Your task to perform on an android device: Open location settings Image 0: 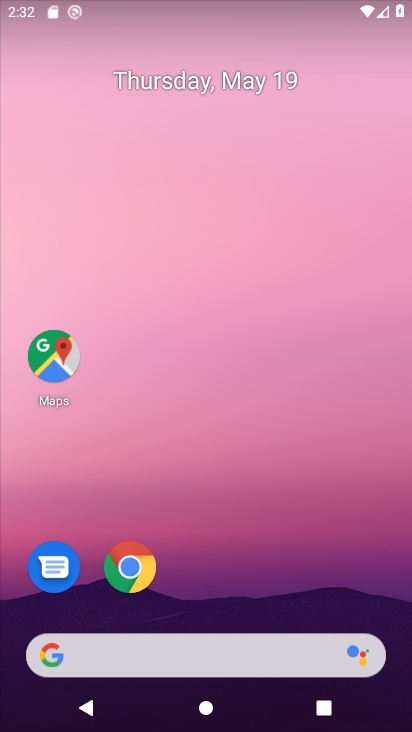
Step 0: drag from (185, 616) to (196, 13)
Your task to perform on an android device: Open location settings Image 1: 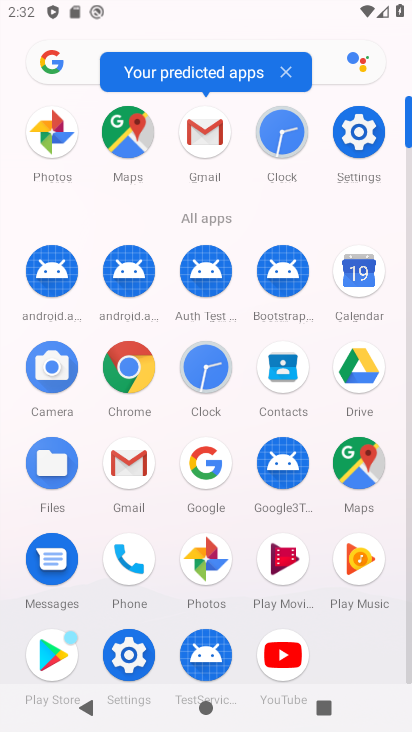
Step 1: click (333, 140)
Your task to perform on an android device: Open location settings Image 2: 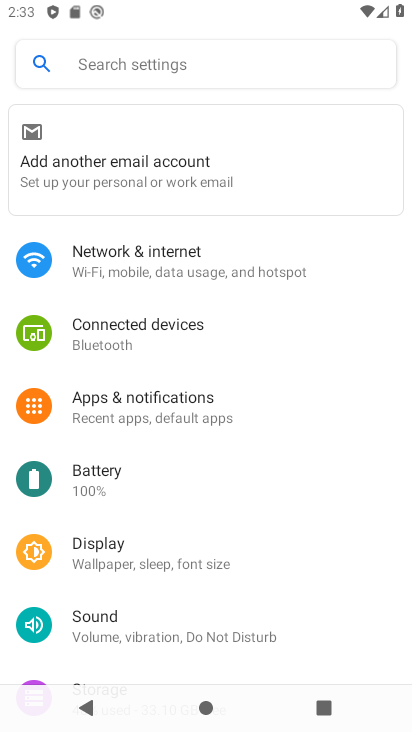
Step 2: drag from (269, 577) to (190, 1)
Your task to perform on an android device: Open location settings Image 3: 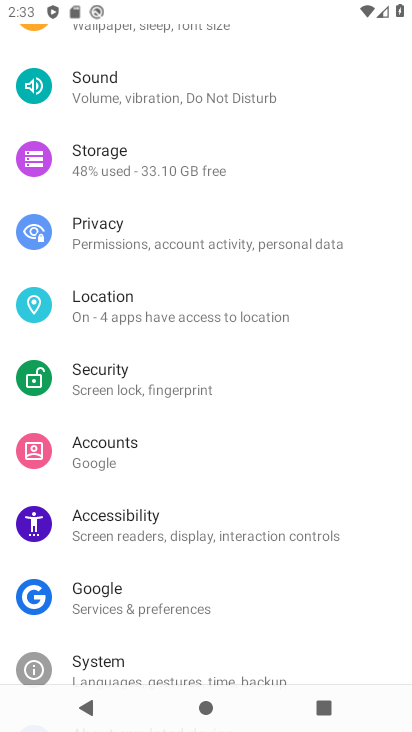
Step 3: drag from (187, 545) to (168, 487)
Your task to perform on an android device: Open location settings Image 4: 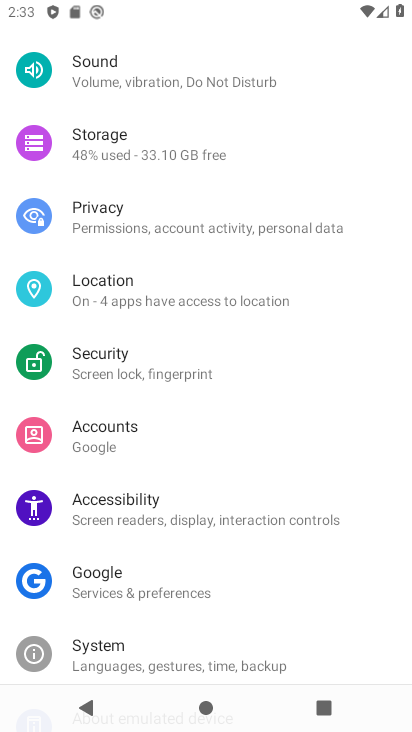
Step 4: click (143, 301)
Your task to perform on an android device: Open location settings Image 5: 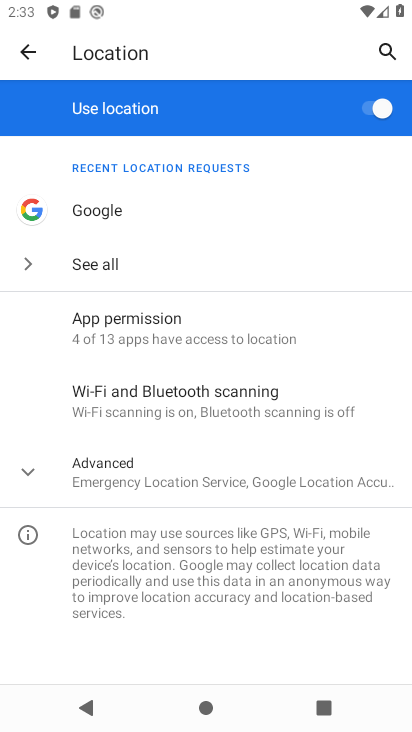
Step 5: click (138, 458)
Your task to perform on an android device: Open location settings Image 6: 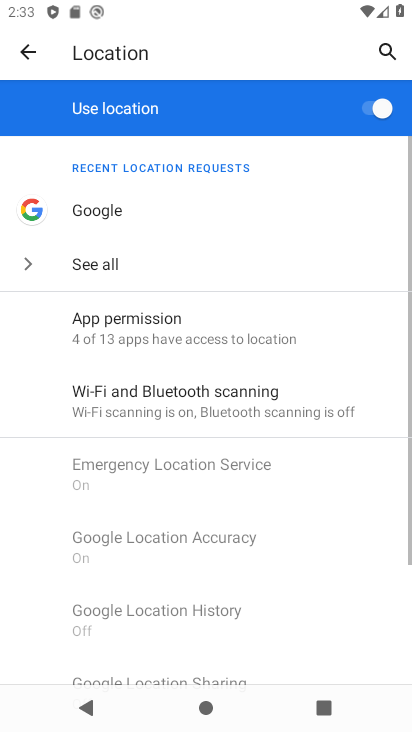
Step 6: task complete